Your task to perform on an android device: Add "razer deathadder" to the cart on target.com Image 0: 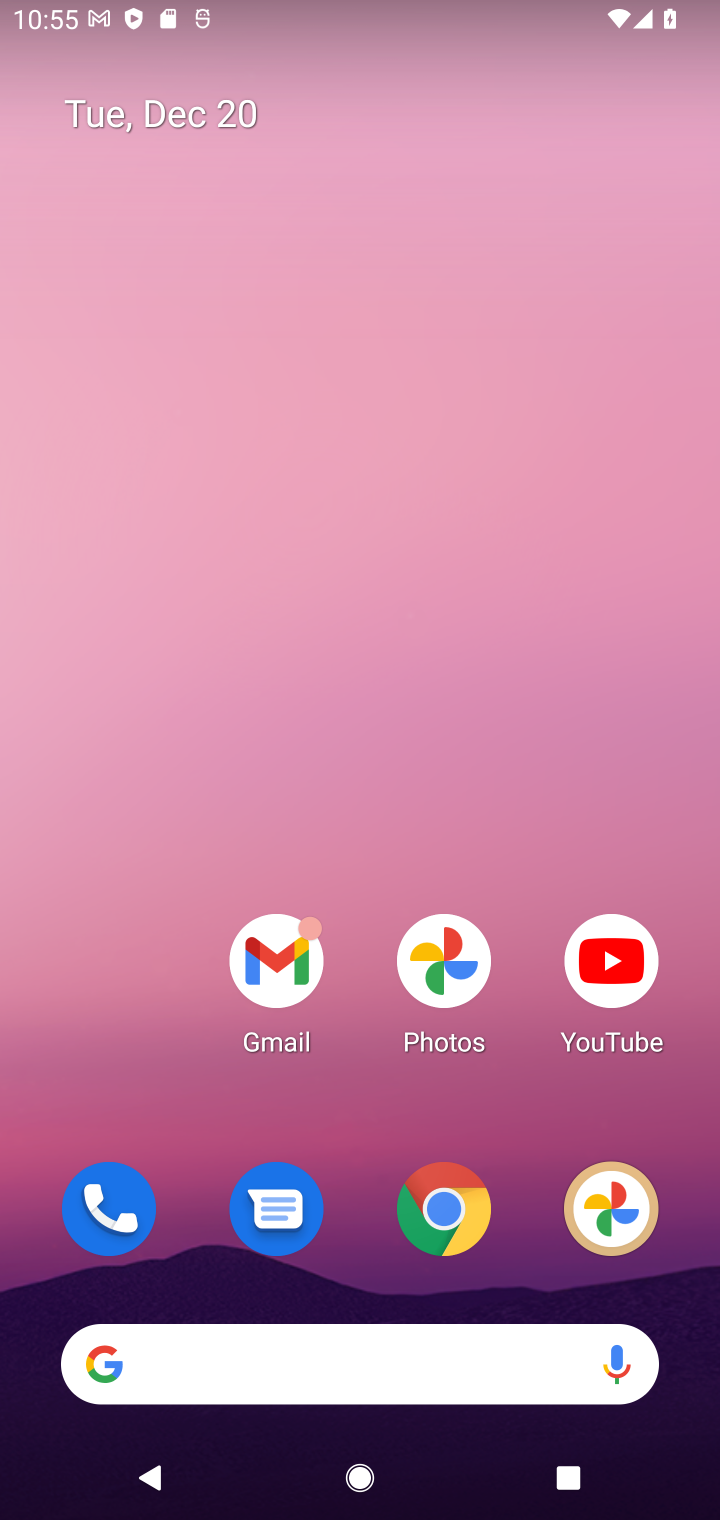
Step 0: click (455, 1208)
Your task to perform on an android device: Add "razer deathadder" to the cart on target.com Image 1: 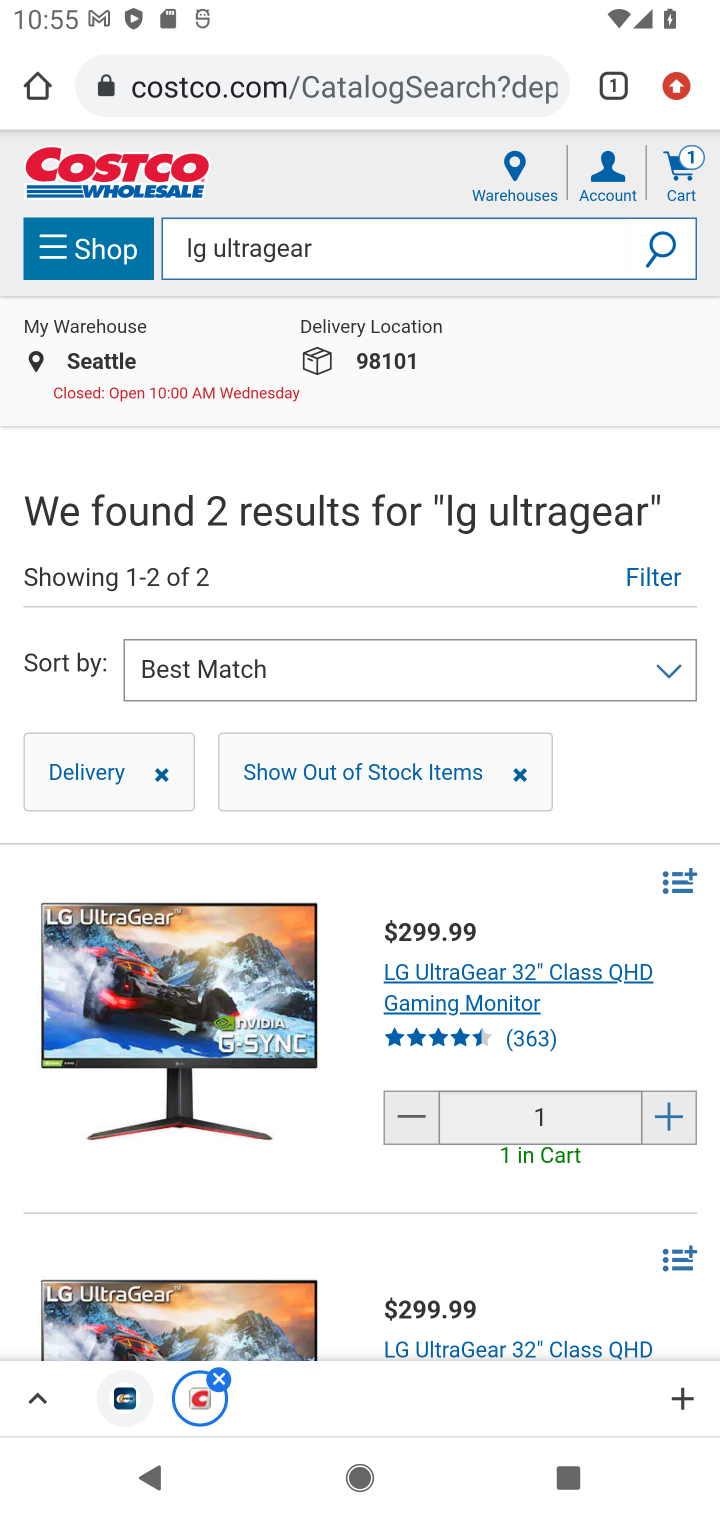
Step 1: click (288, 80)
Your task to perform on an android device: Add "razer deathadder" to the cart on target.com Image 2: 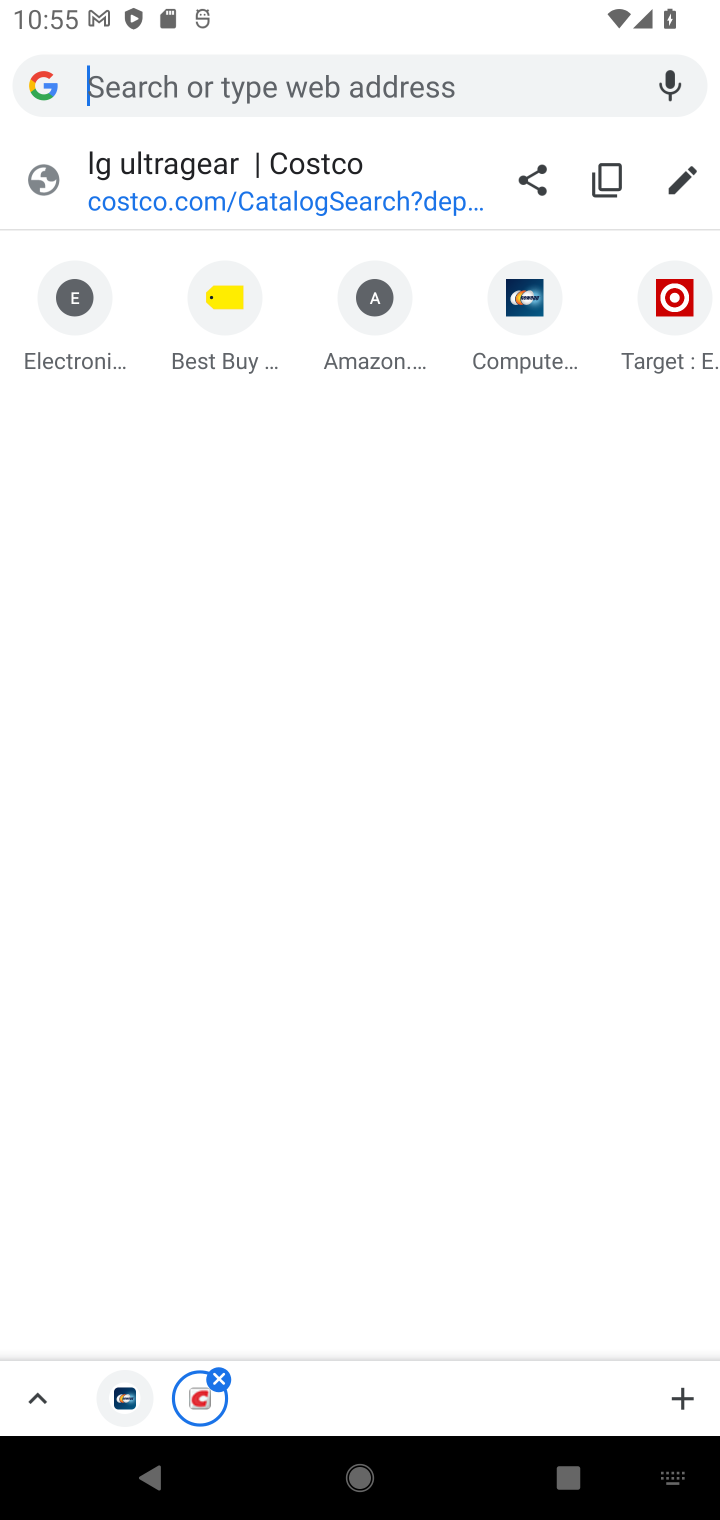
Step 2: click (665, 323)
Your task to perform on an android device: Add "razer deathadder" to the cart on target.com Image 3: 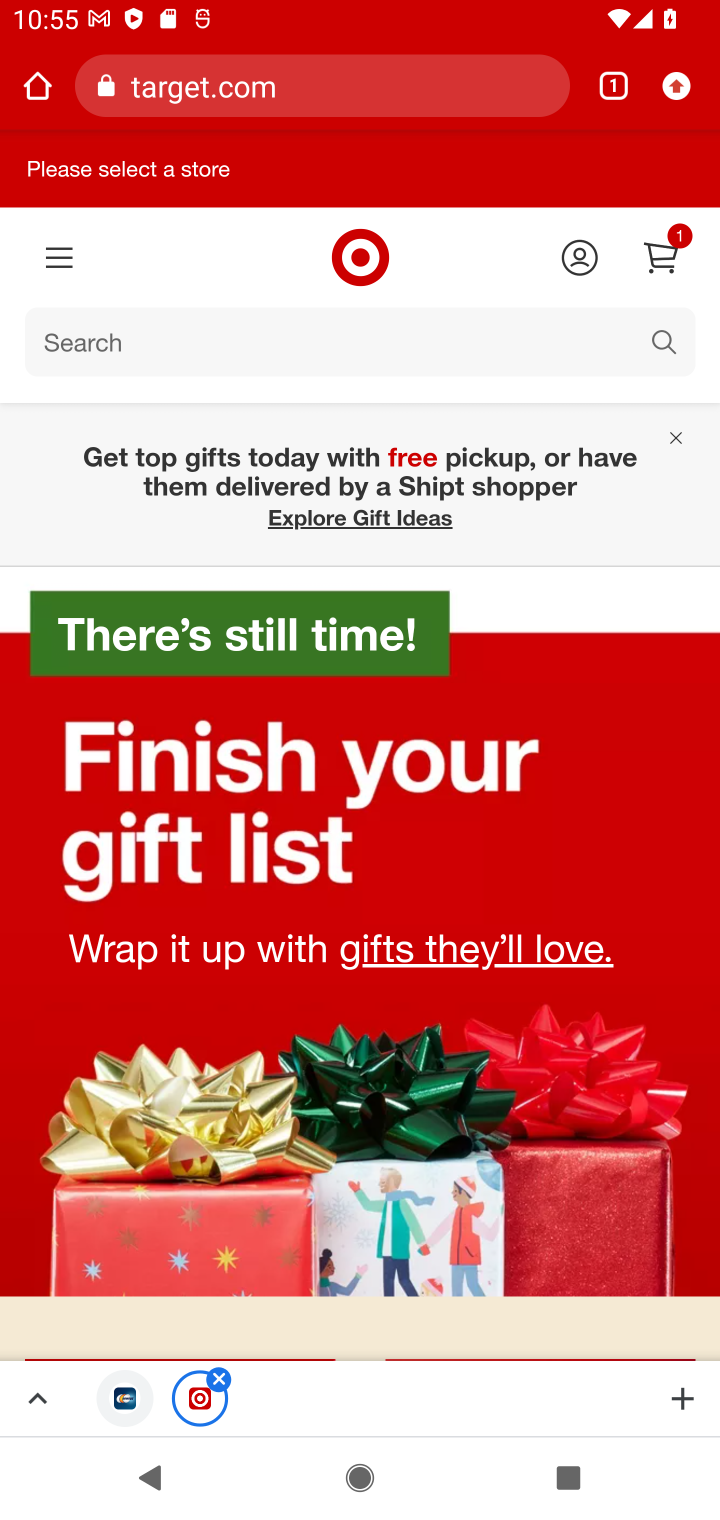
Step 3: click (72, 341)
Your task to perform on an android device: Add "razer deathadder" to the cart on target.com Image 4: 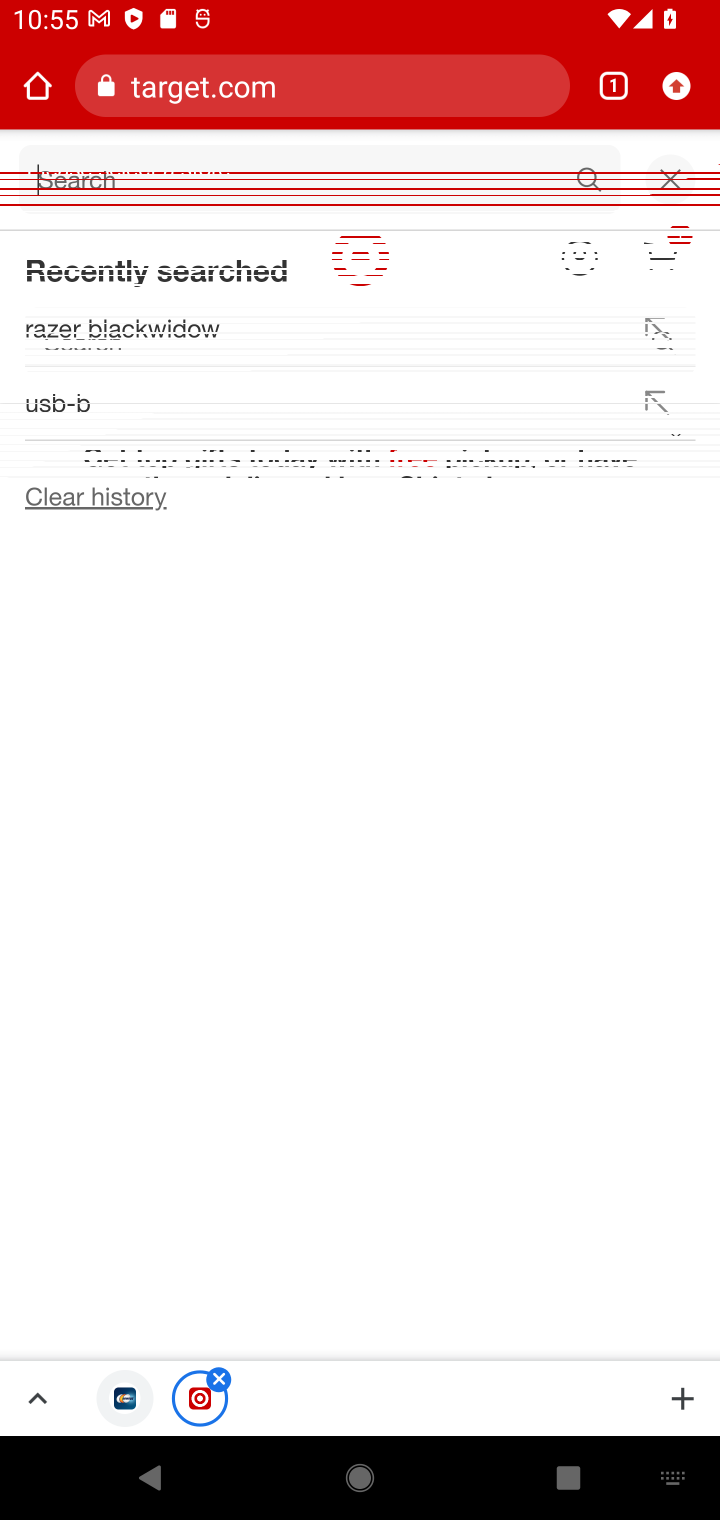
Step 4: type "razer deathadder"
Your task to perform on an android device: Add "razer deathadder" to the cart on target.com Image 5: 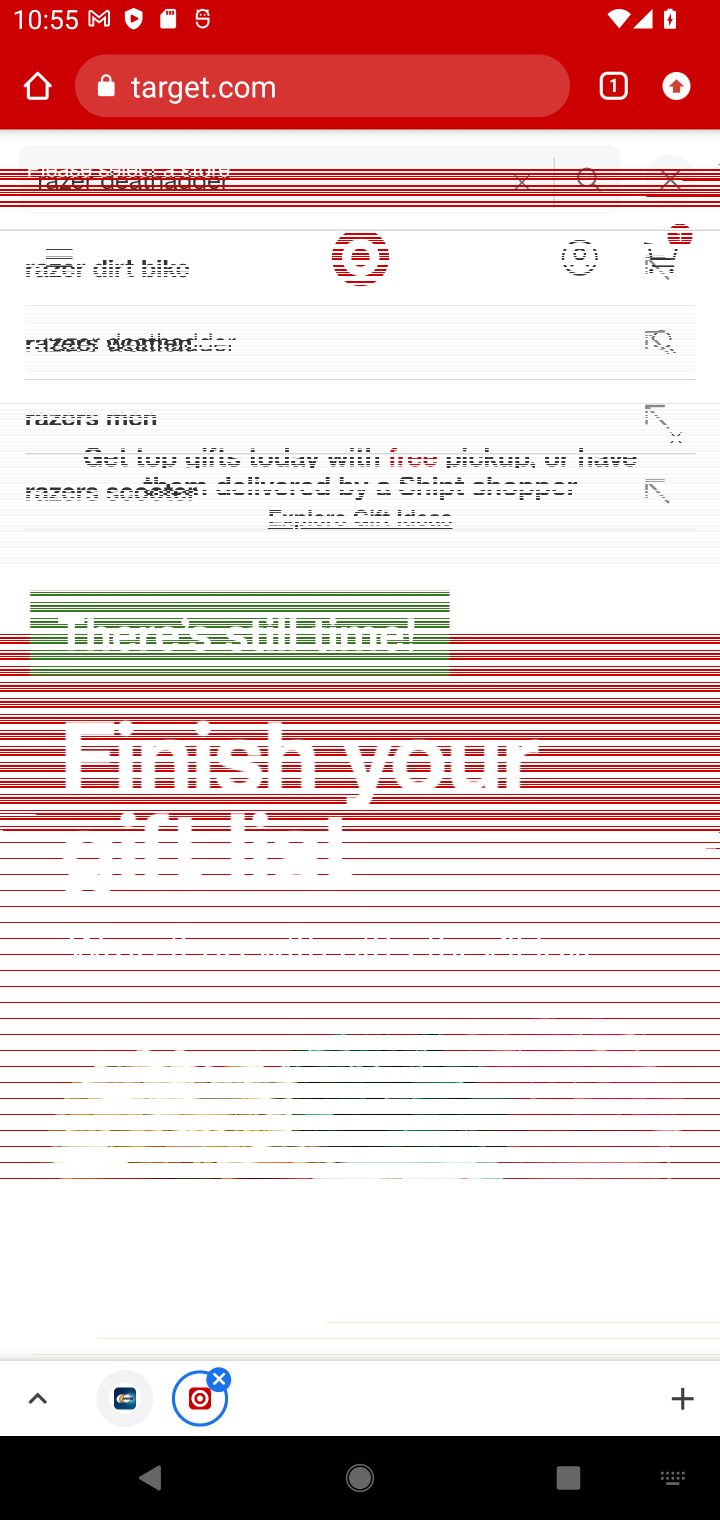
Step 5: click (590, 176)
Your task to perform on an android device: Add "razer deathadder" to the cart on target.com Image 6: 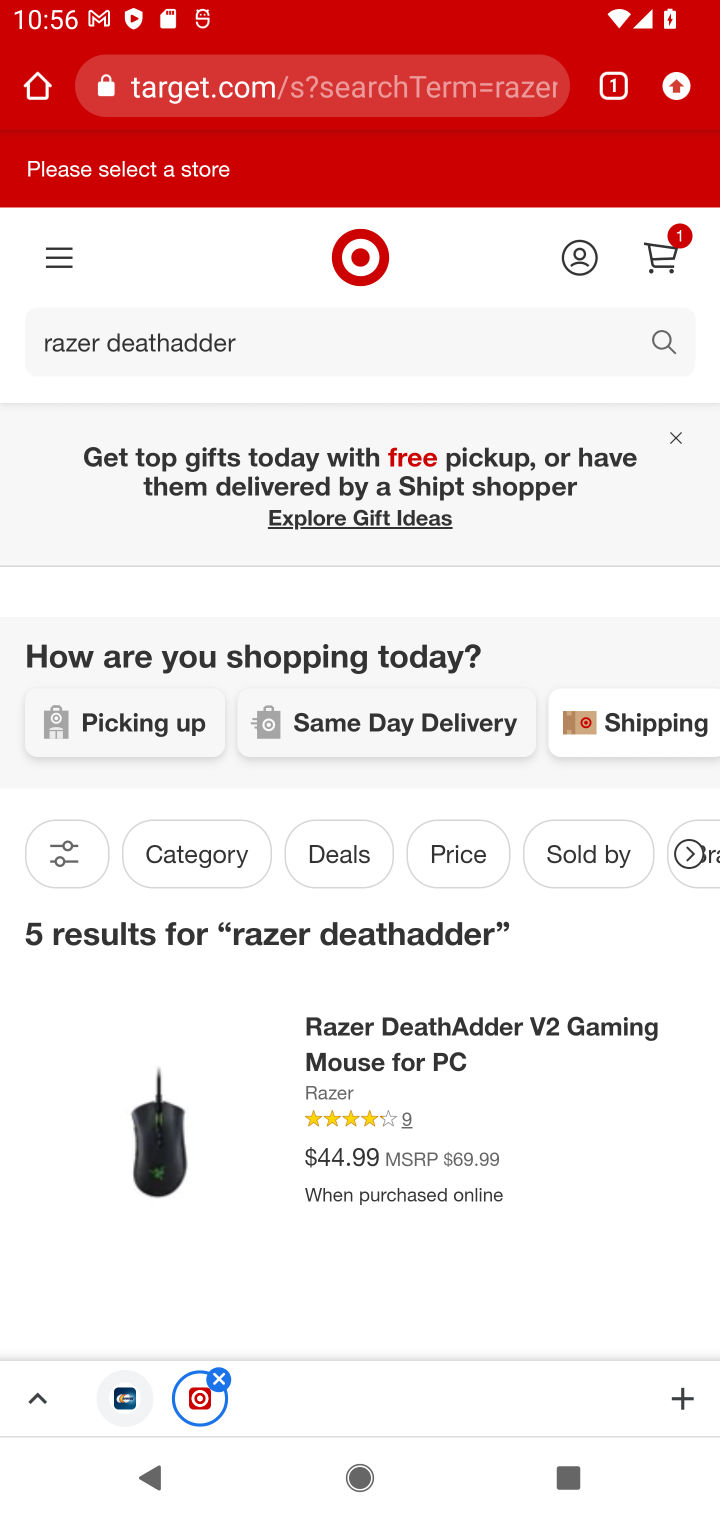
Step 6: drag from (311, 1151) to (299, 764)
Your task to perform on an android device: Add "razer deathadder" to the cart on target.com Image 7: 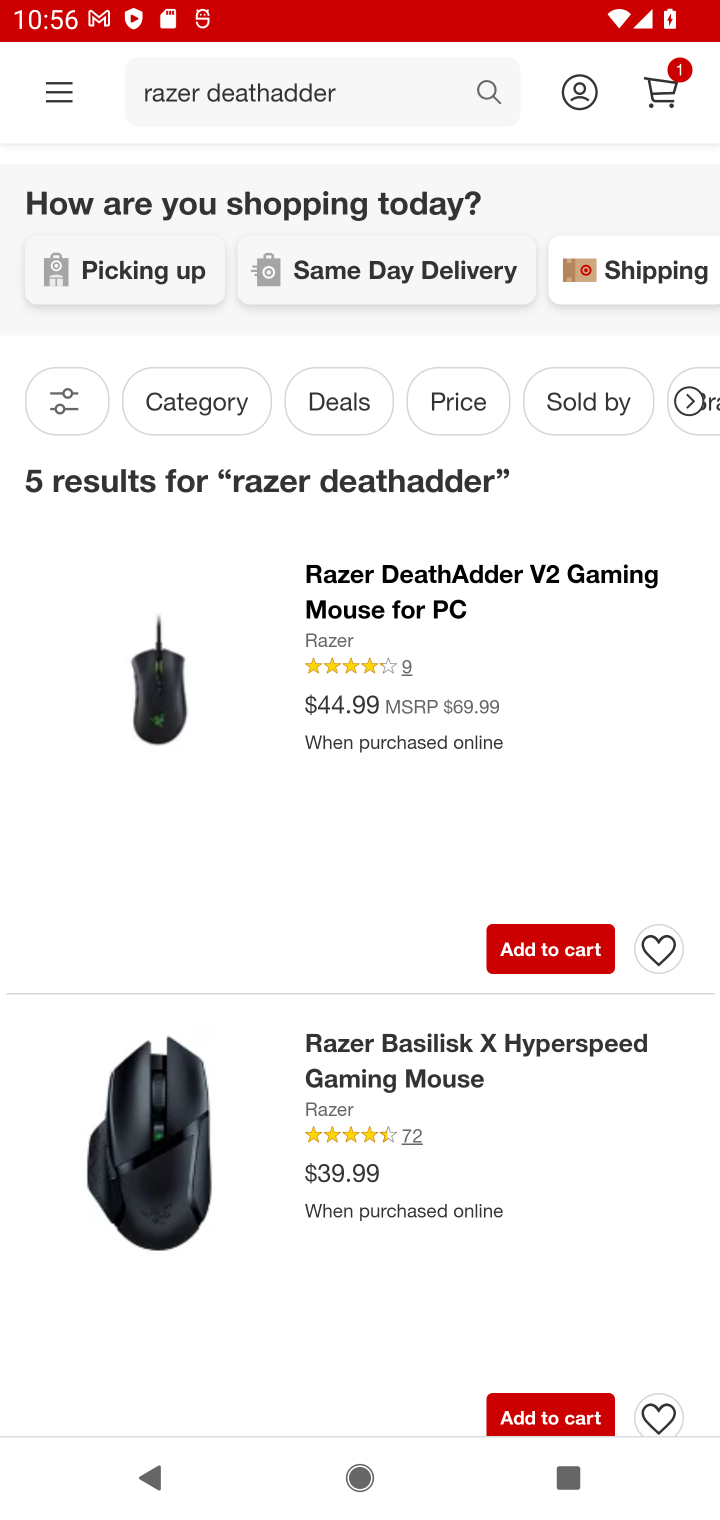
Step 7: click (544, 957)
Your task to perform on an android device: Add "razer deathadder" to the cart on target.com Image 8: 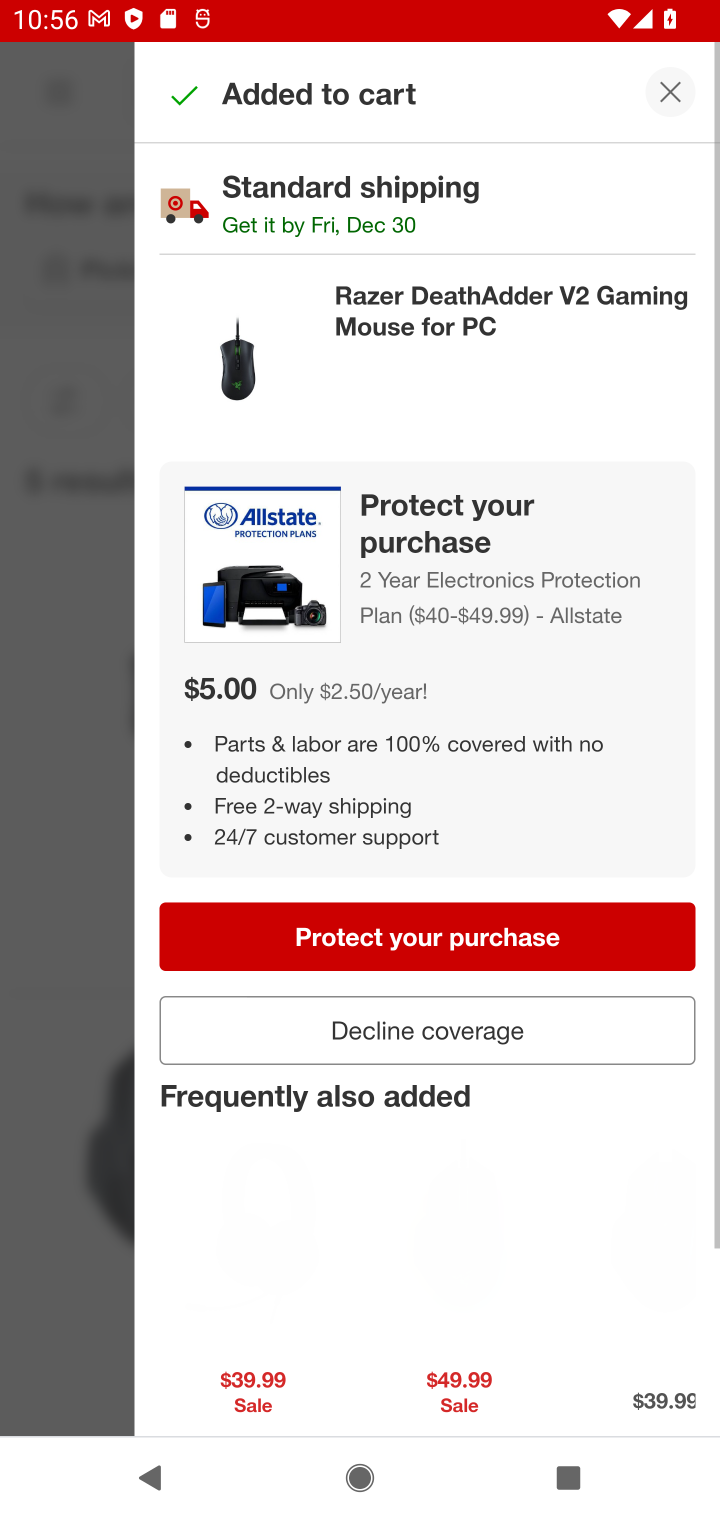
Step 8: task complete